Your task to perform on an android device: Go to Yahoo.com Image 0: 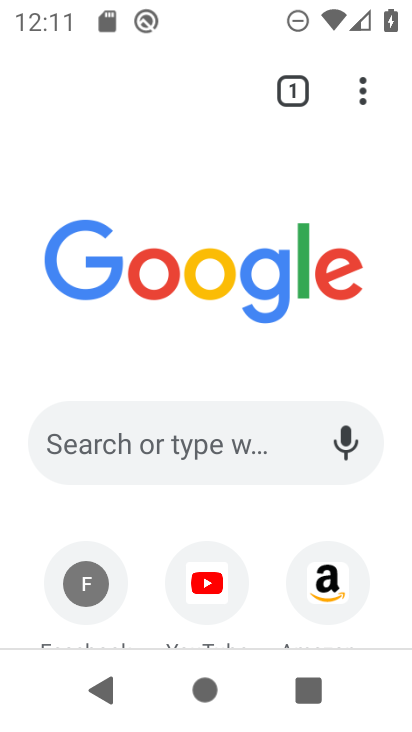
Step 0: click (159, 462)
Your task to perform on an android device: Go to Yahoo.com Image 1: 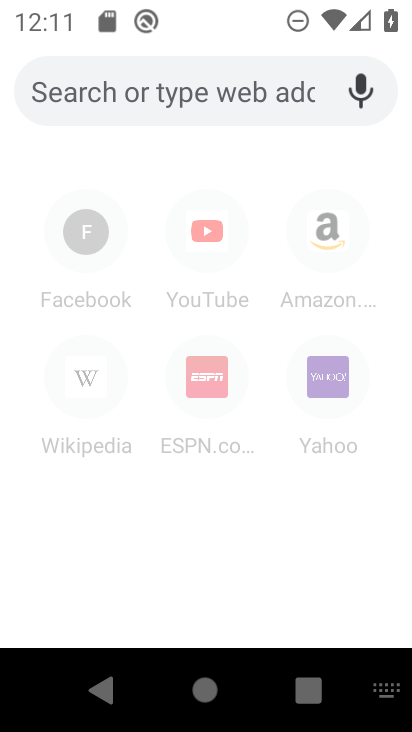
Step 1: press home button
Your task to perform on an android device: Go to Yahoo.com Image 2: 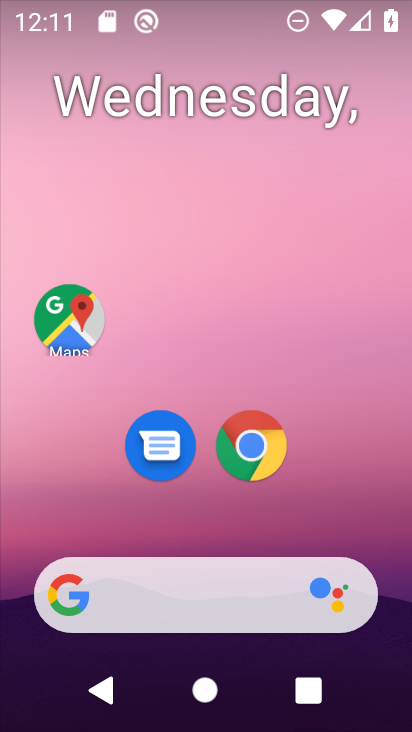
Step 2: drag from (366, 522) to (264, 15)
Your task to perform on an android device: Go to Yahoo.com Image 3: 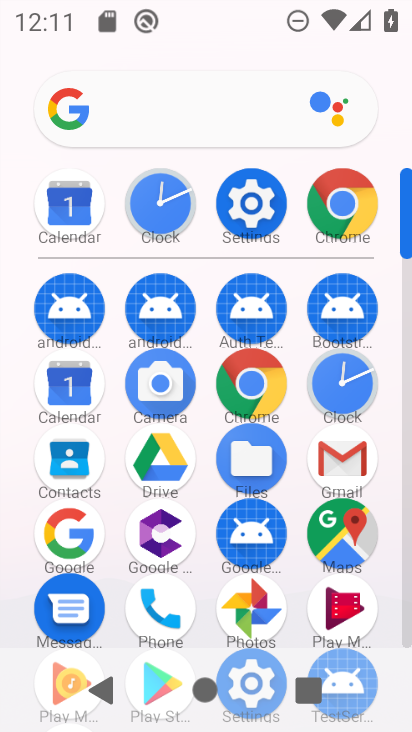
Step 3: click (72, 537)
Your task to perform on an android device: Go to Yahoo.com Image 4: 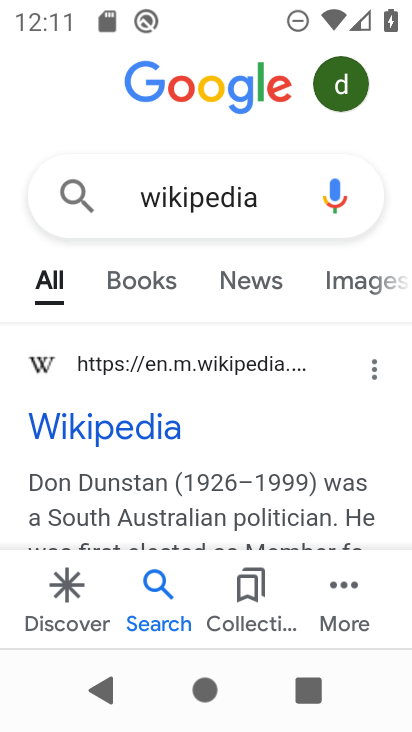
Step 4: press back button
Your task to perform on an android device: Go to Yahoo.com Image 5: 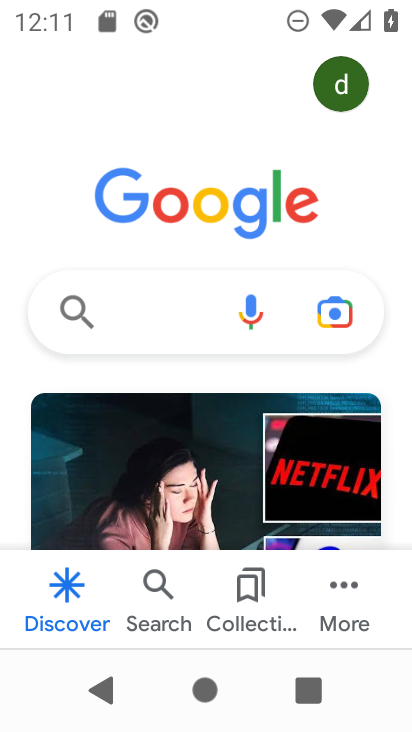
Step 5: click (144, 310)
Your task to perform on an android device: Go to Yahoo.com Image 6: 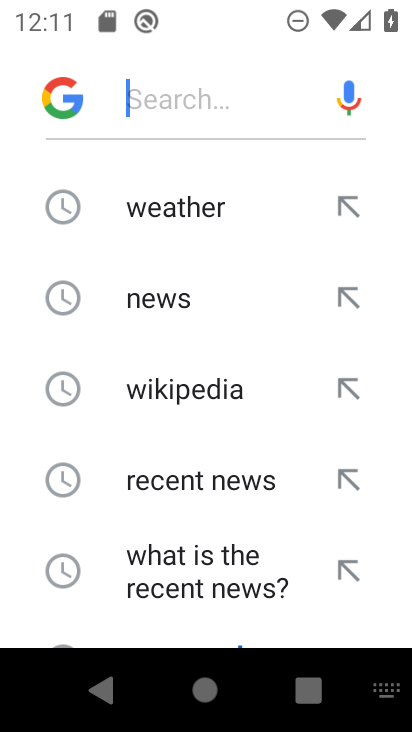
Step 6: drag from (143, 573) to (204, 111)
Your task to perform on an android device: Go to Yahoo.com Image 7: 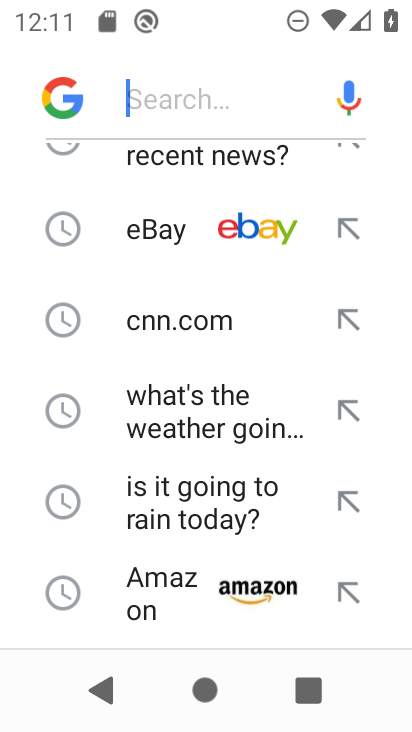
Step 7: drag from (168, 559) to (223, 180)
Your task to perform on an android device: Go to Yahoo.com Image 8: 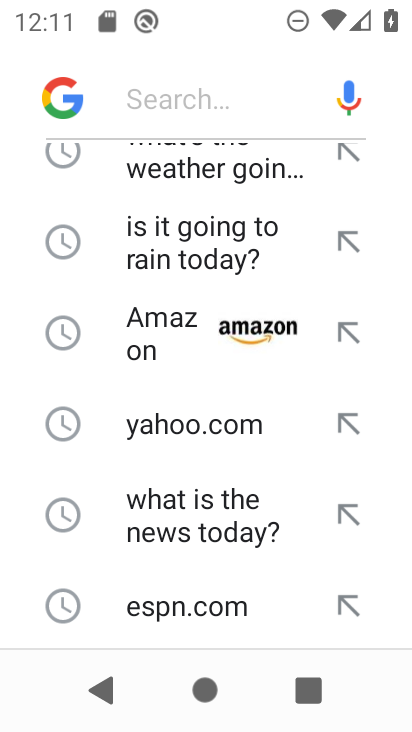
Step 8: click (207, 440)
Your task to perform on an android device: Go to Yahoo.com Image 9: 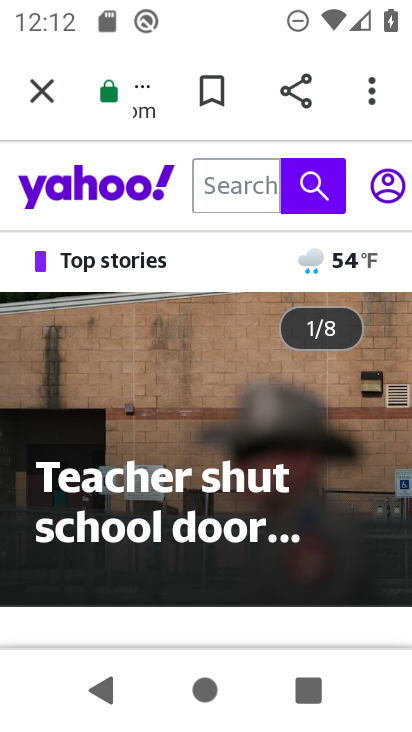
Step 9: task complete